Your task to perform on an android device: Open battery settings Image 0: 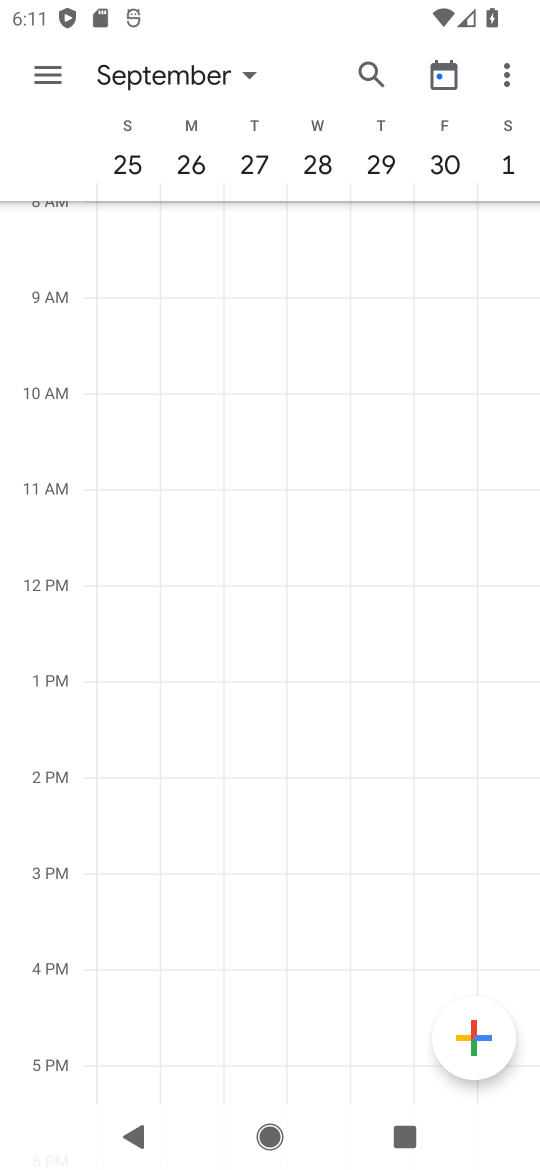
Step 0: press home button
Your task to perform on an android device: Open battery settings Image 1: 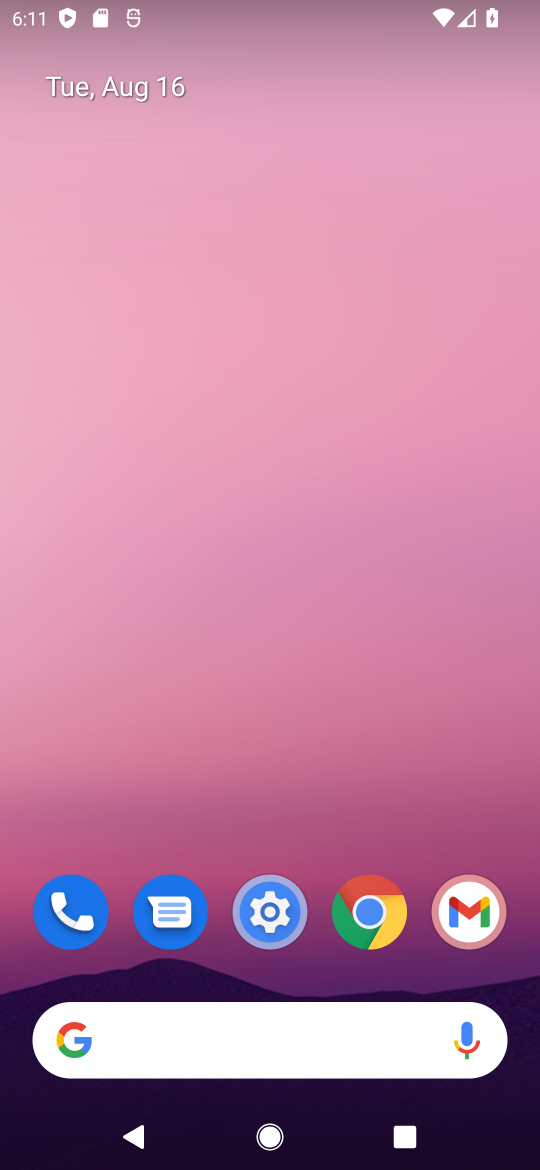
Step 1: click (270, 912)
Your task to perform on an android device: Open battery settings Image 2: 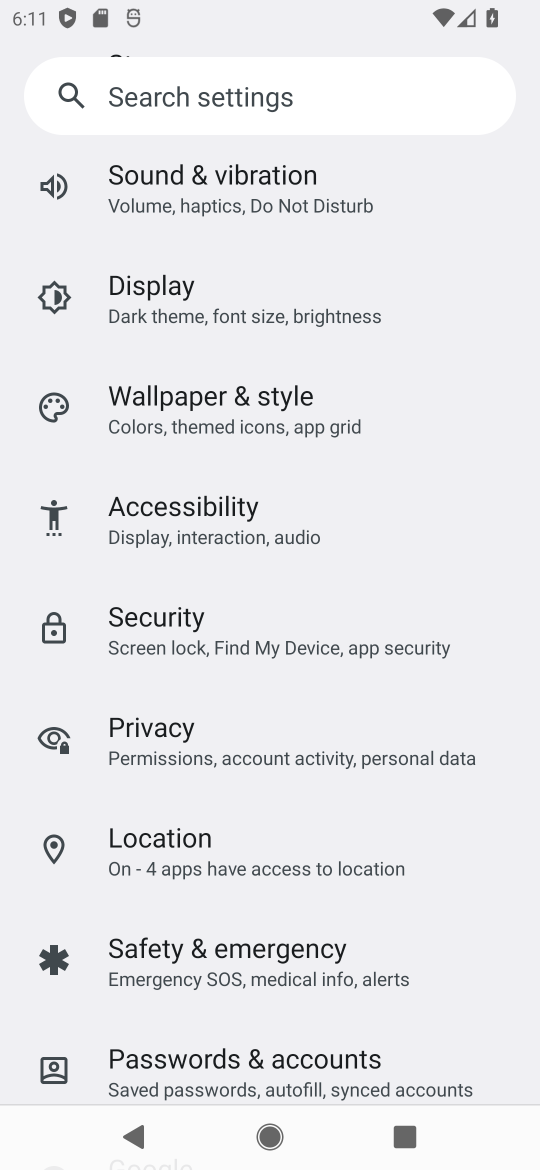
Step 2: drag from (390, 298) to (396, 556)
Your task to perform on an android device: Open battery settings Image 3: 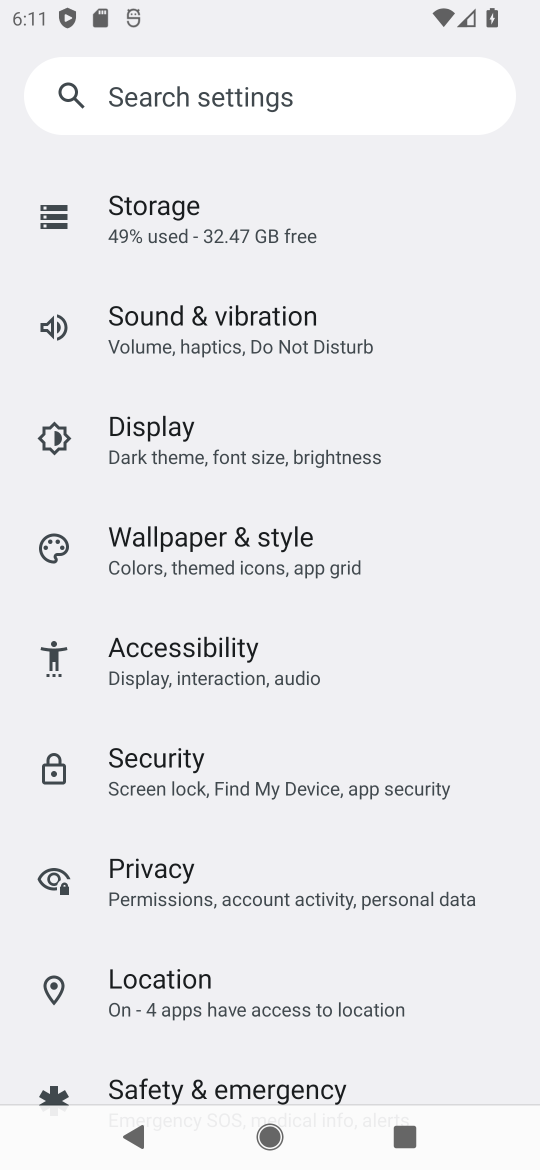
Step 3: drag from (444, 274) to (440, 524)
Your task to perform on an android device: Open battery settings Image 4: 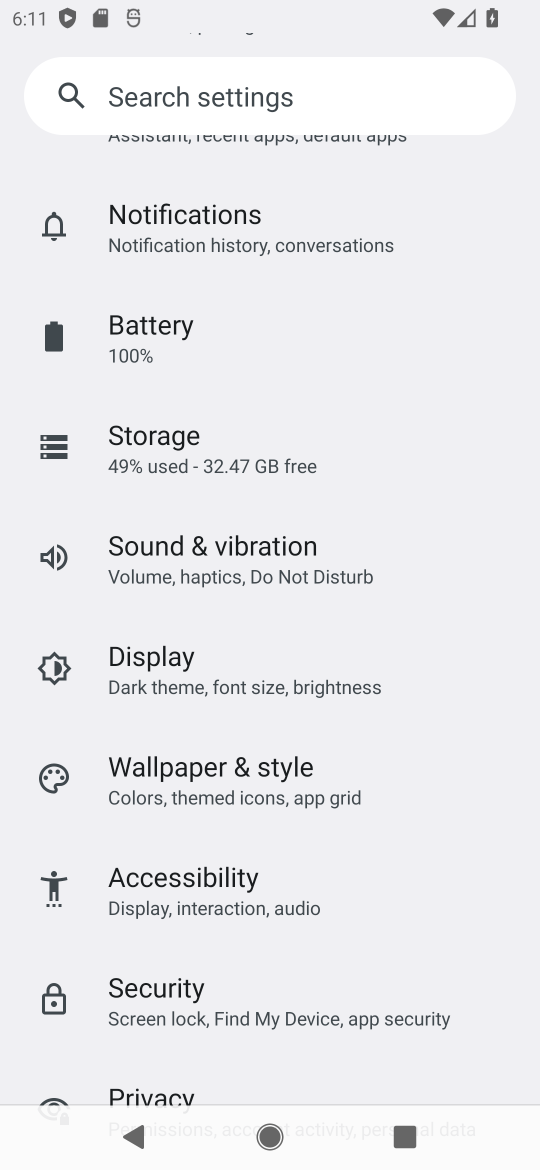
Step 4: click (146, 316)
Your task to perform on an android device: Open battery settings Image 5: 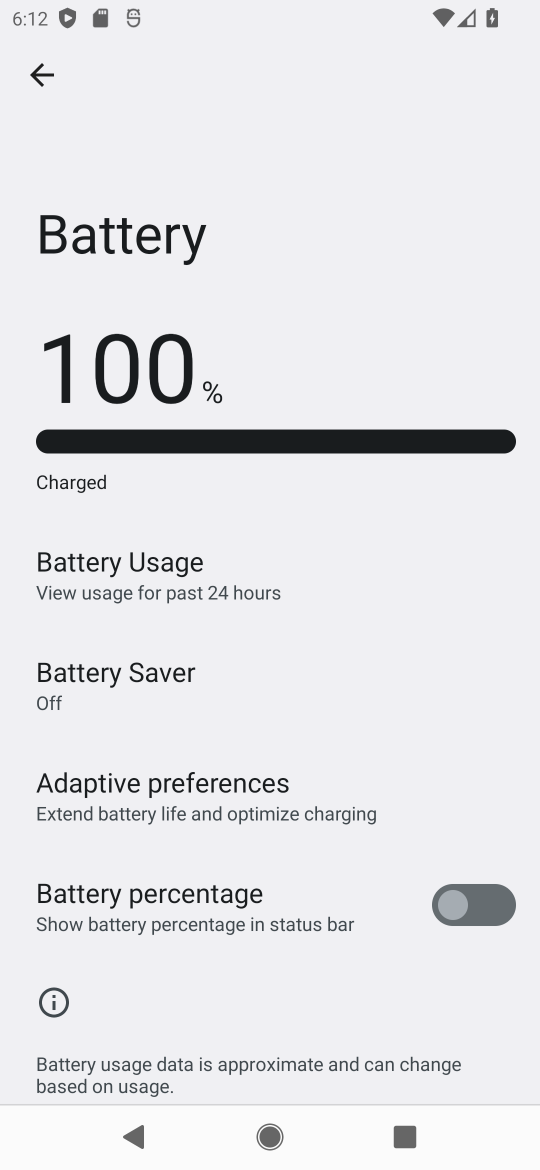
Step 5: task complete